Your task to perform on an android device: Go to sound settings Image 0: 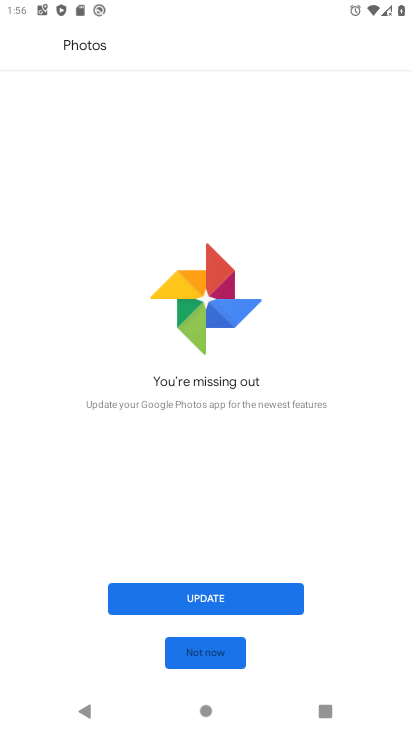
Step 0: press home button
Your task to perform on an android device: Go to sound settings Image 1: 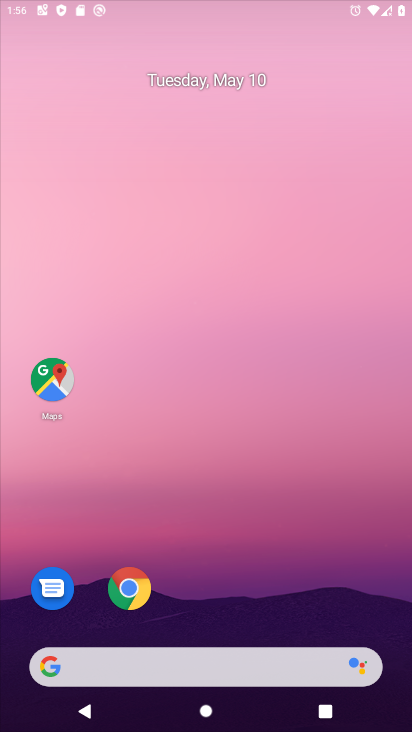
Step 1: drag from (296, 610) to (259, 216)
Your task to perform on an android device: Go to sound settings Image 2: 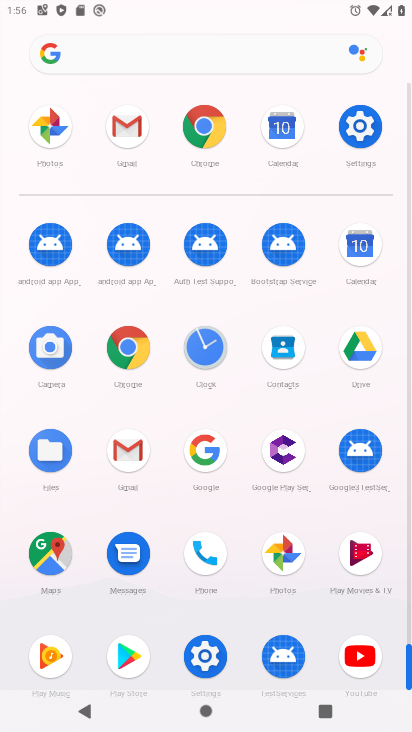
Step 2: click (348, 132)
Your task to perform on an android device: Go to sound settings Image 3: 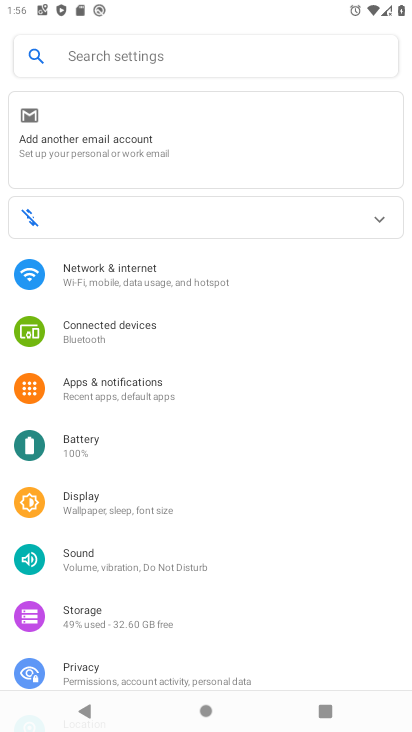
Step 3: click (106, 561)
Your task to perform on an android device: Go to sound settings Image 4: 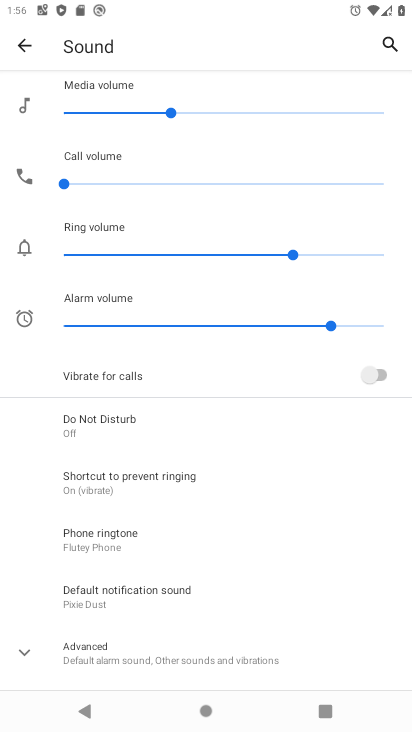
Step 4: task complete